Your task to perform on an android device: turn on sleep mode Image 0: 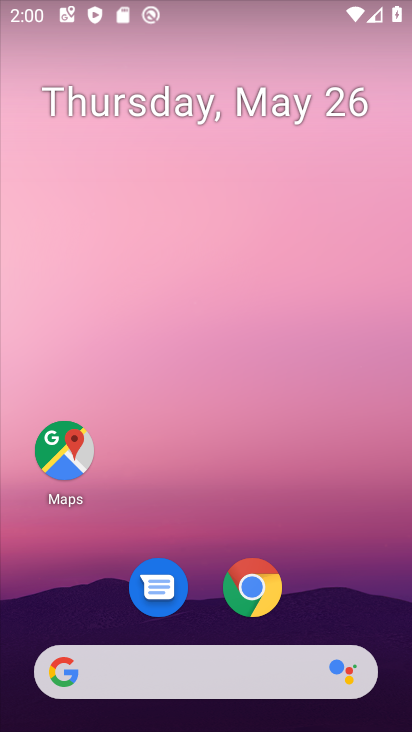
Step 0: drag from (291, 532) to (267, 28)
Your task to perform on an android device: turn on sleep mode Image 1: 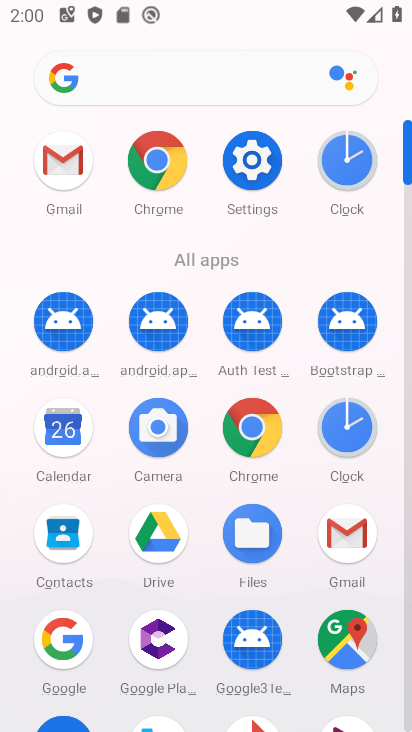
Step 1: click (240, 160)
Your task to perform on an android device: turn on sleep mode Image 2: 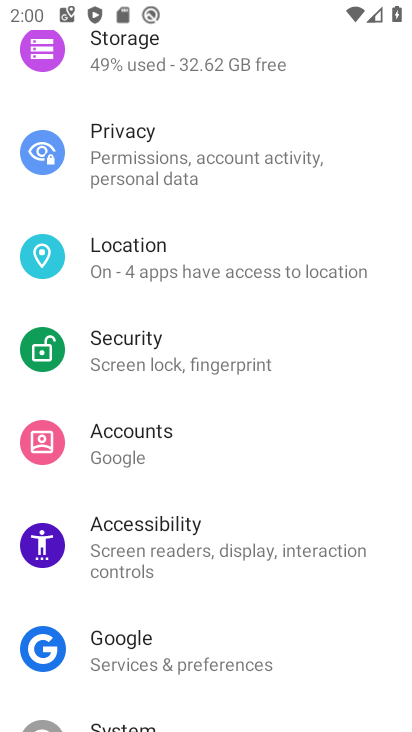
Step 2: drag from (216, 308) to (192, 731)
Your task to perform on an android device: turn on sleep mode Image 3: 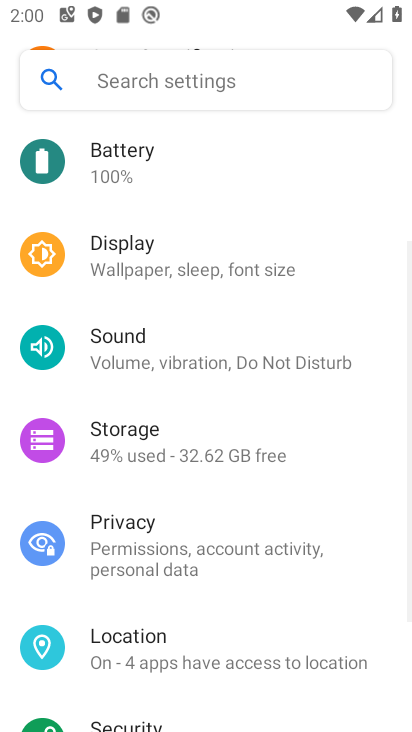
Step 3: drag from (219, 266) to (205, 731)
Your task to perform on an android device: turn on sleep mode Image 4: 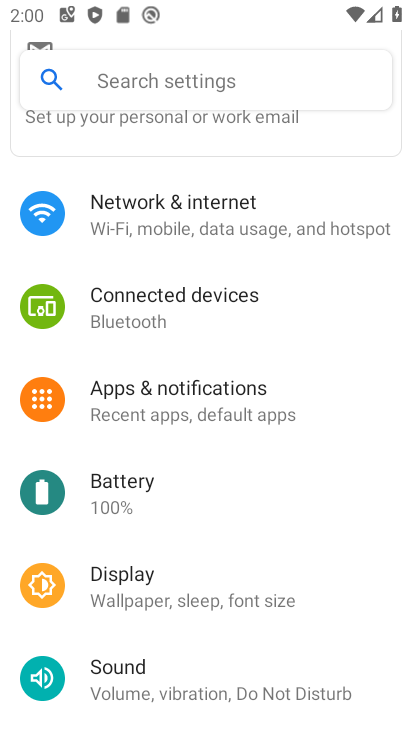
Step 4: drag from (245, 599) to (294, 214)
Your task to perform on an android device: turn on sleep mode Image 5: 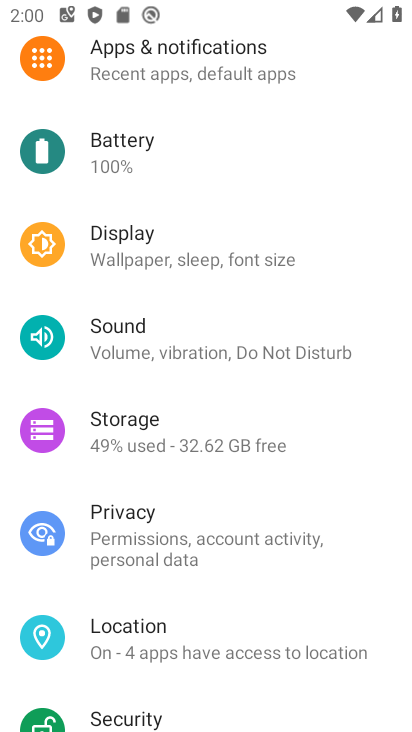
Step 5: click (164, 268)
Your task to perform on an android device: turn on sleep mode Image 6: 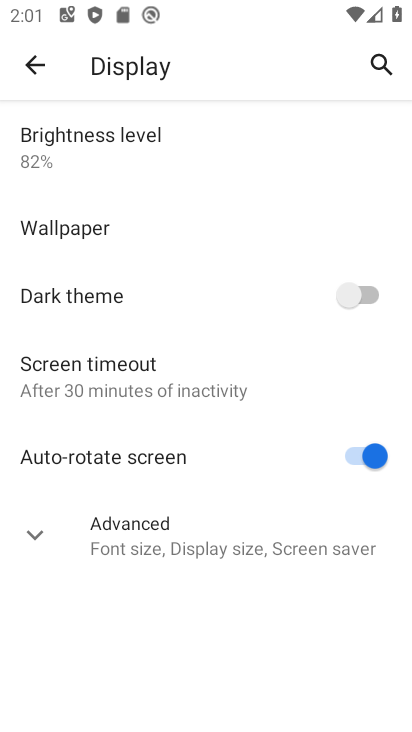
Step 6: click (148, 376)
Your task to perform on an android device: turn on sleep mode Image 7: 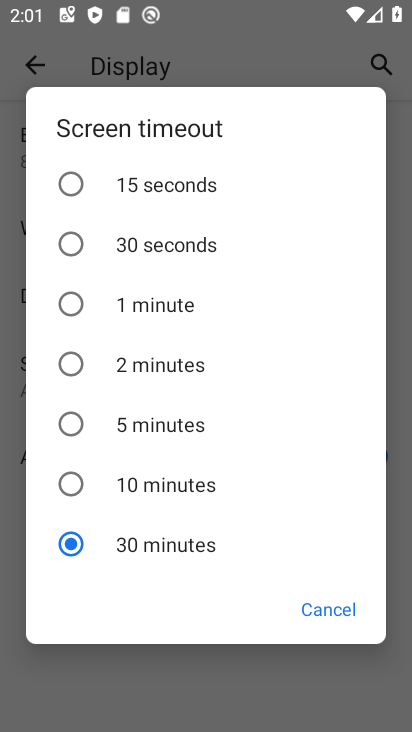
Step 7: task complete